Your task to perform on an android device: Open Chrome and go to the settings page Image 0: 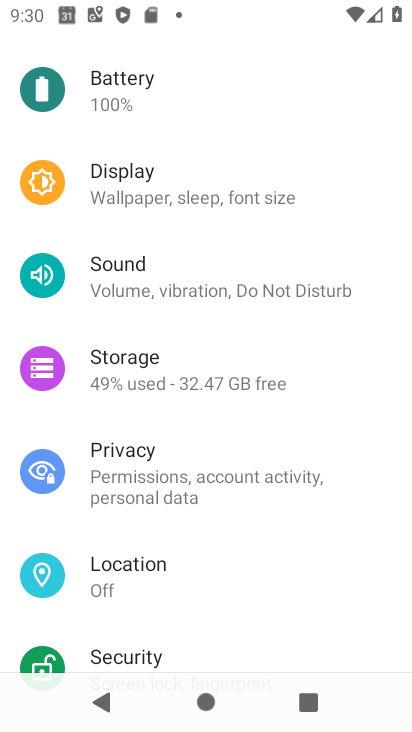
Step 0: press home button
Your task to perform on an android device: Open Chrome and go to the settings page Image 1: 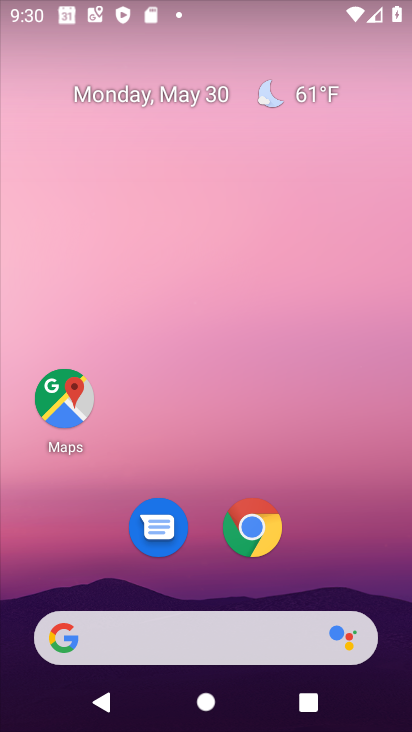
Step 1: click (249, 529)
Your task to perform on an android device: Open Chrome and go to the settings page Image 2: 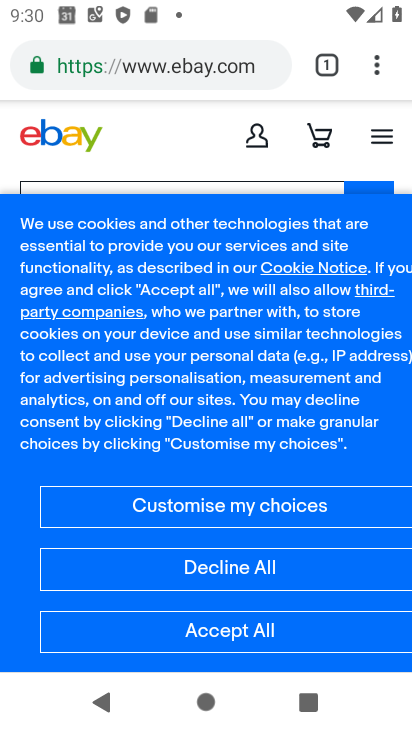
Step 2: click (375, 56)
Your task to perform on an android device: Open Chrome and go to the settings page Image 3: 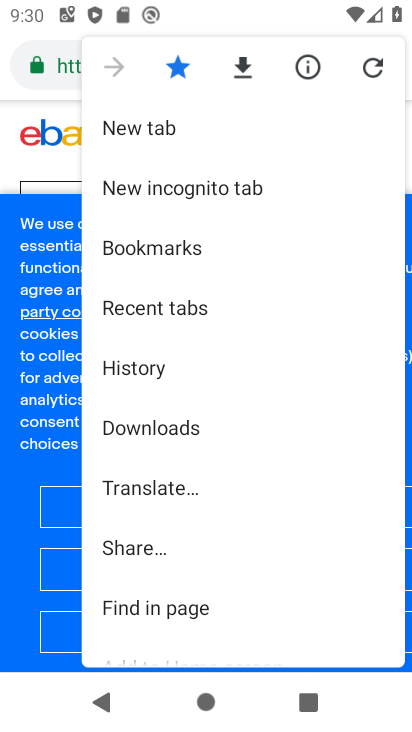
Step 3: drag from (195, 607) to (216, 100)
Your task to perform on an android device: Open Chrome and go to the settings page Image 4: 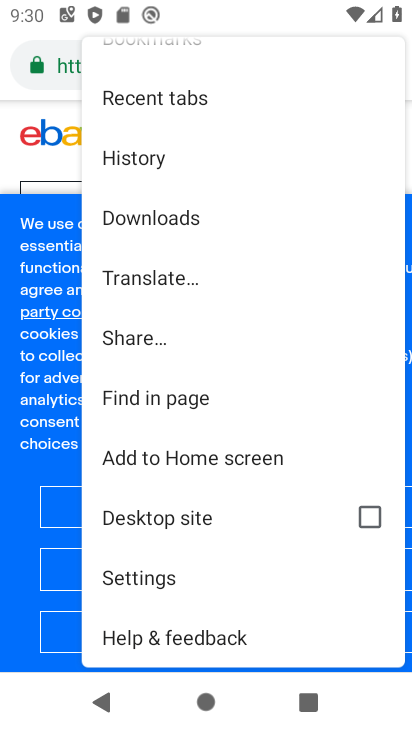
Step 4: click (182, 572)
Your task to perform on an android device: Open Chrome and go to the settings page Image 5: 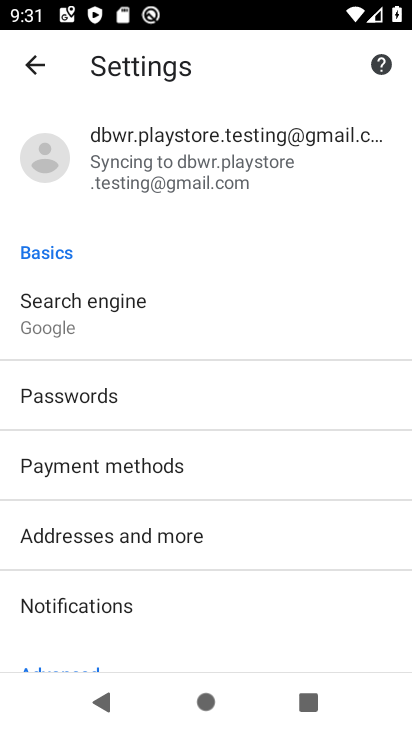
Step 5: task complete